Your task to perform on an android device: Go to network settings Image 0: 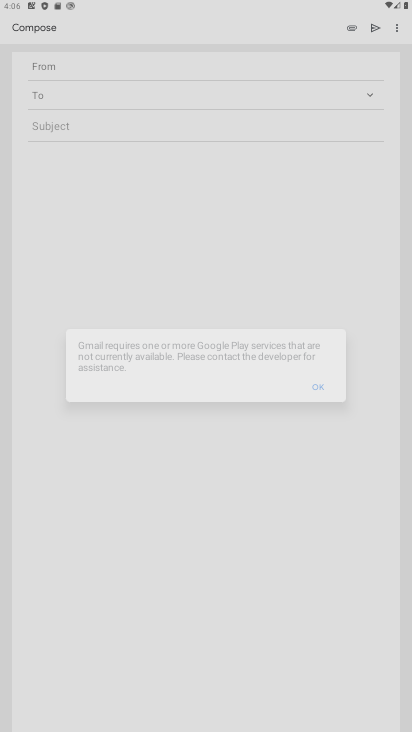
Step 0: drag from (210, 679) to (220, 61)
Your task to perform on an android device: Go to network settings Image 1: 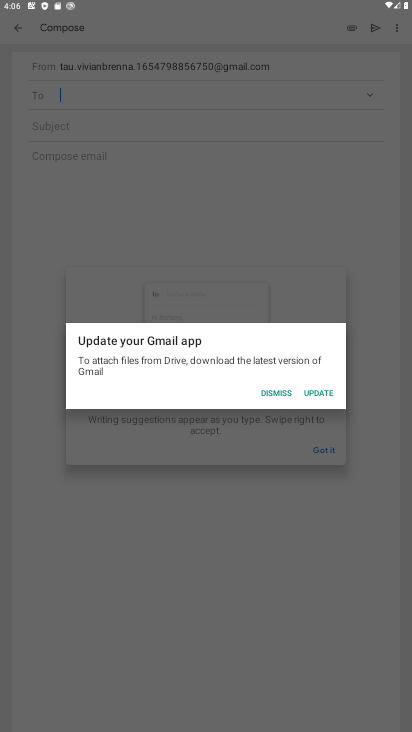
Step 1: press home button
Your task to perform on an android device: Go to network settings Image 2: 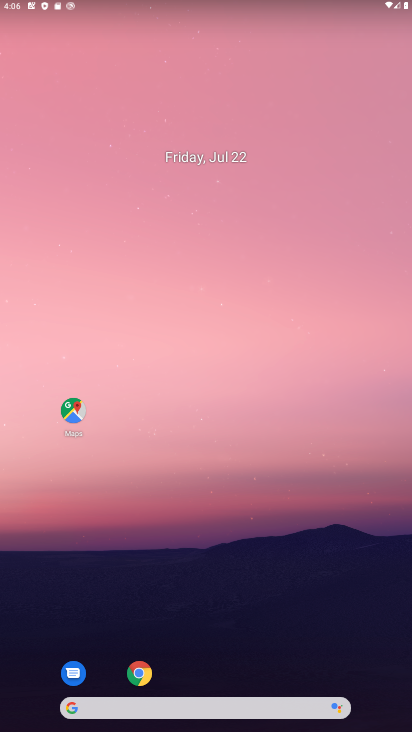
Step 2: drag from (222, 681) to (240, 54)
Your task to perform on an android device: Go to network settings Image 3: 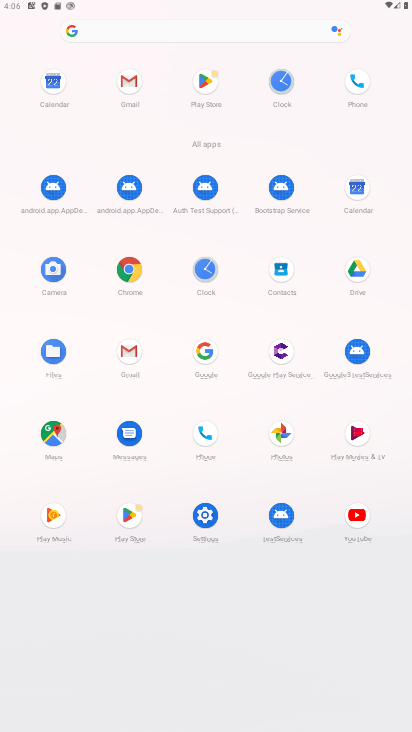
Step 3: click (203, 510)
Your task to perform on an android device: Go to network settings Image 4: 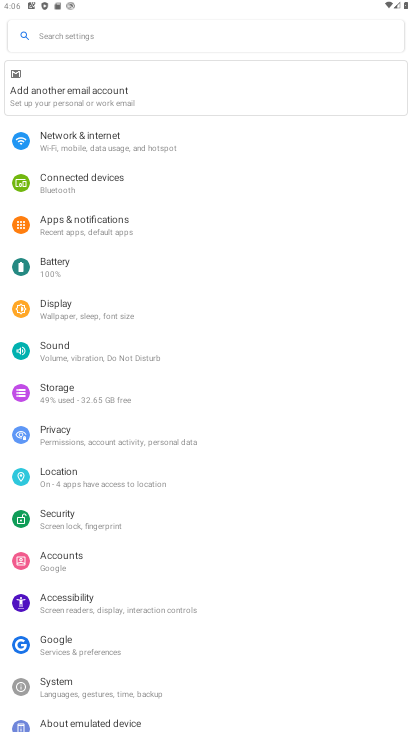
Step 4: click (149, 132)
Your task to perform on an android device: Go to network settings Image 5: 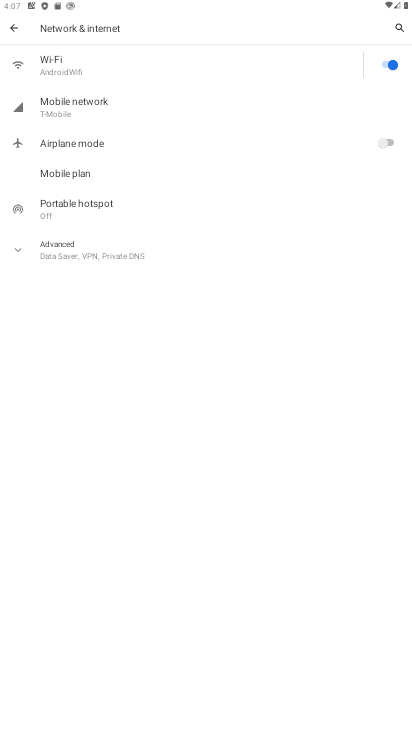
Step 5: click (25, 247)
Your task to perform on an android device: Go to network settings Image 6: 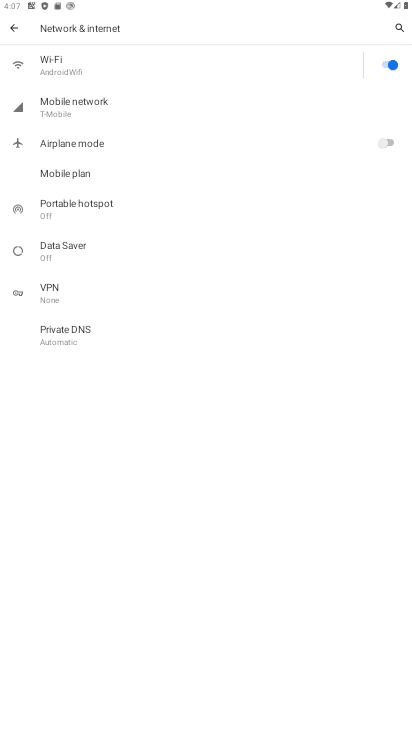
Step 6: task complete